Your task to perform on an android device: open app "Instagram" (install if not already installed) Image 0: 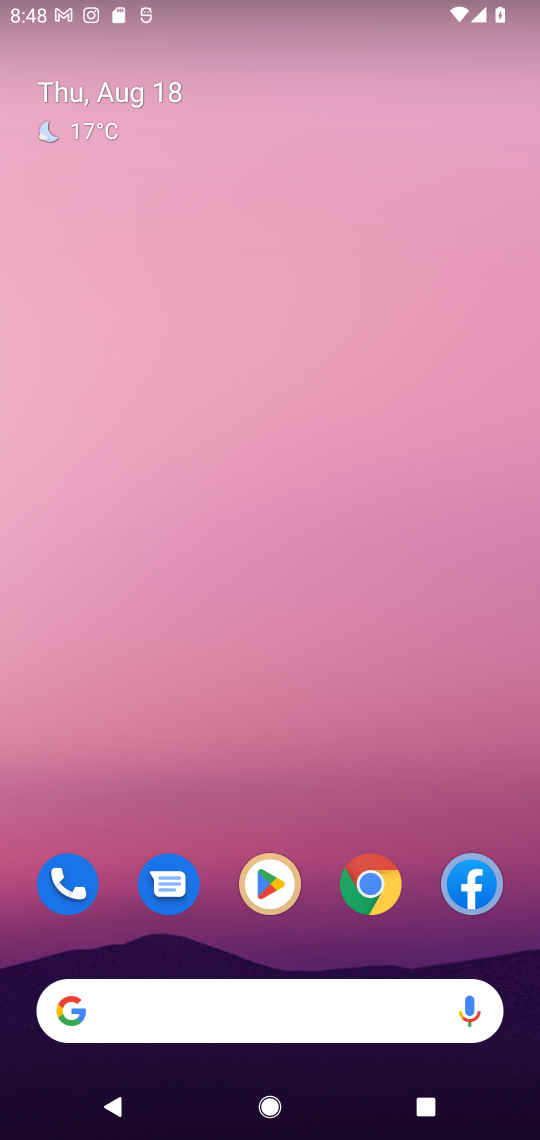
Step 0: drag from (183, 1019) to (229, 91)
Your task to perform on an android device: open app "Instagram" (install if not already installed) Image 1: 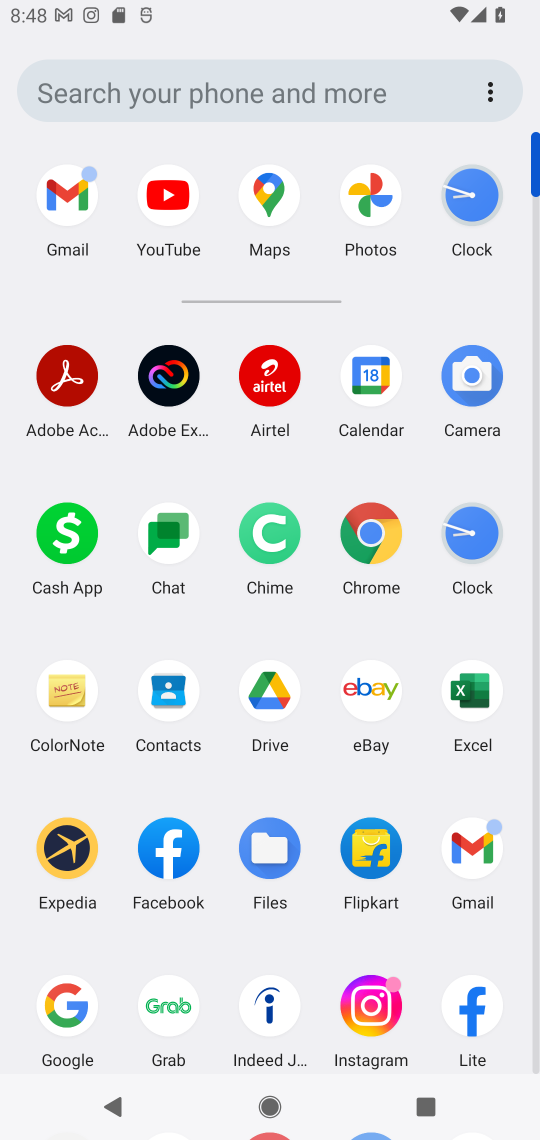
Step 1: drag from (216, 988) to (271, 302)
Your task to perform on an android device: open app "Instagram" (install if not already installed) Image 2: 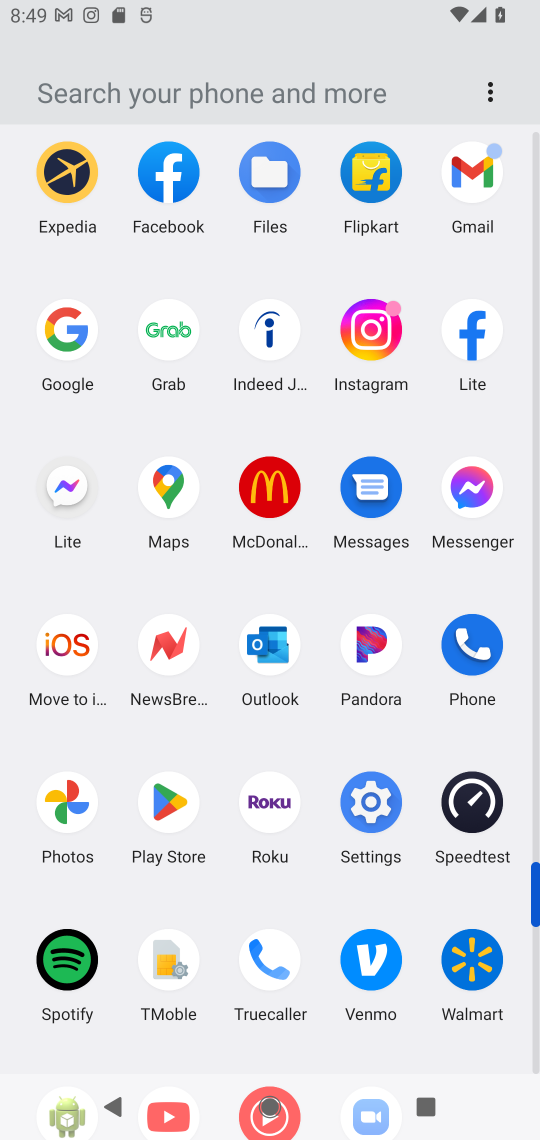
Step 2: click (171, 810)
Your task to perform on an android device: open app "Instagram" (install if not already installed) Image 3: 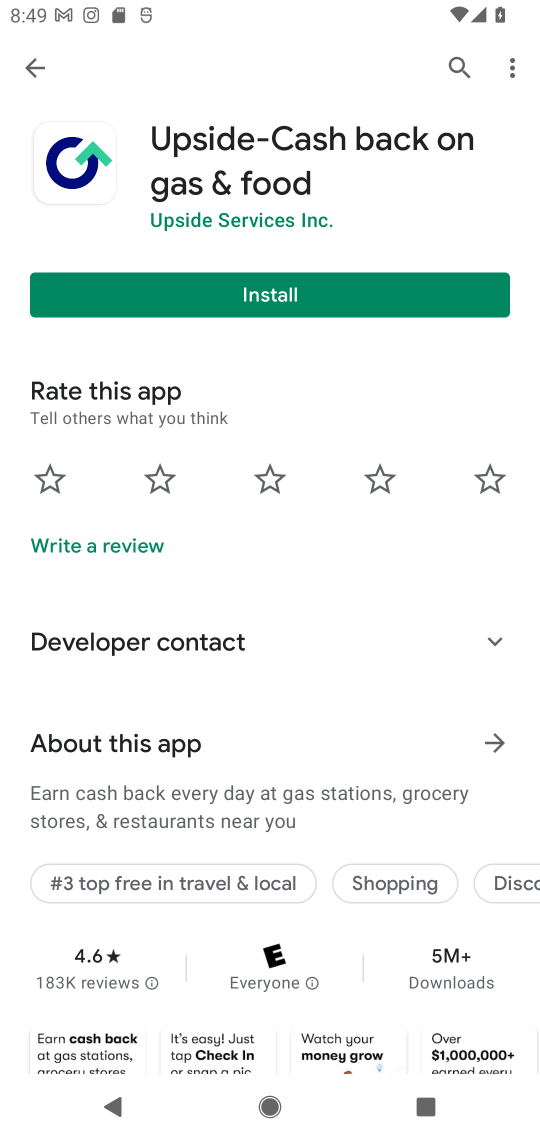
Step 3: press back button
Your task to perform on an android device: open app "Instagram" (install if not already installed) Image 4: 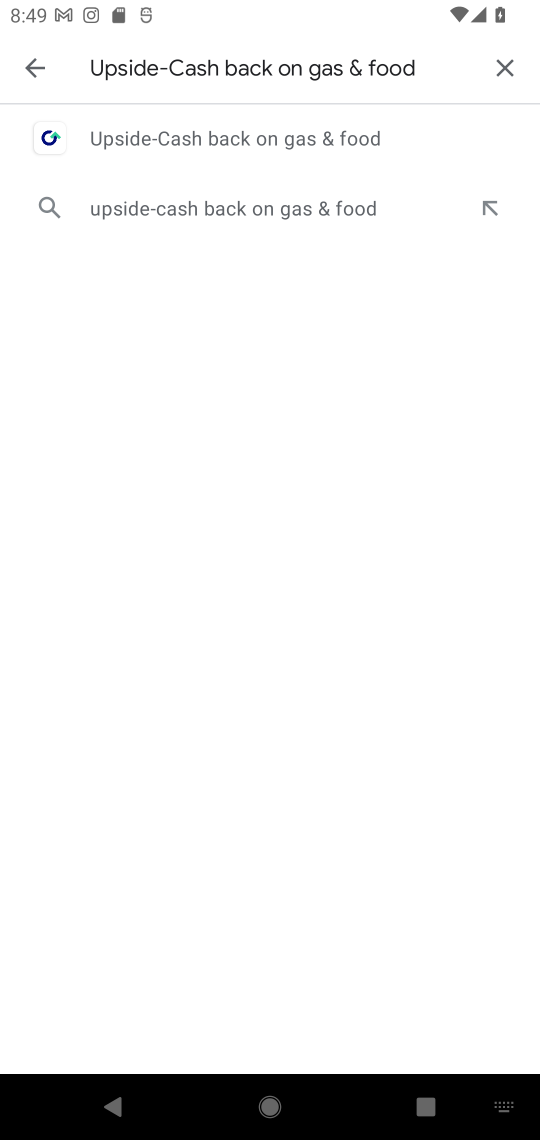
Step 4: press back button
Your task to perform on an android device: open app "Instagram" (install if not already installed) Image 5: 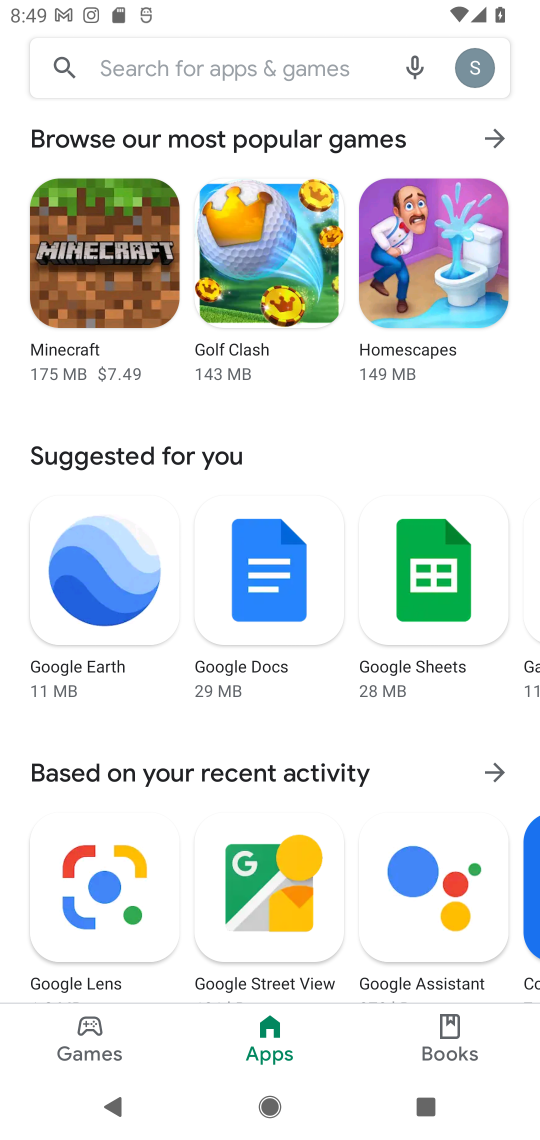
Step 5: click (275, 65)
Your task to perform on an android device: open app "Instagram" (install if not already installed) Image 6: 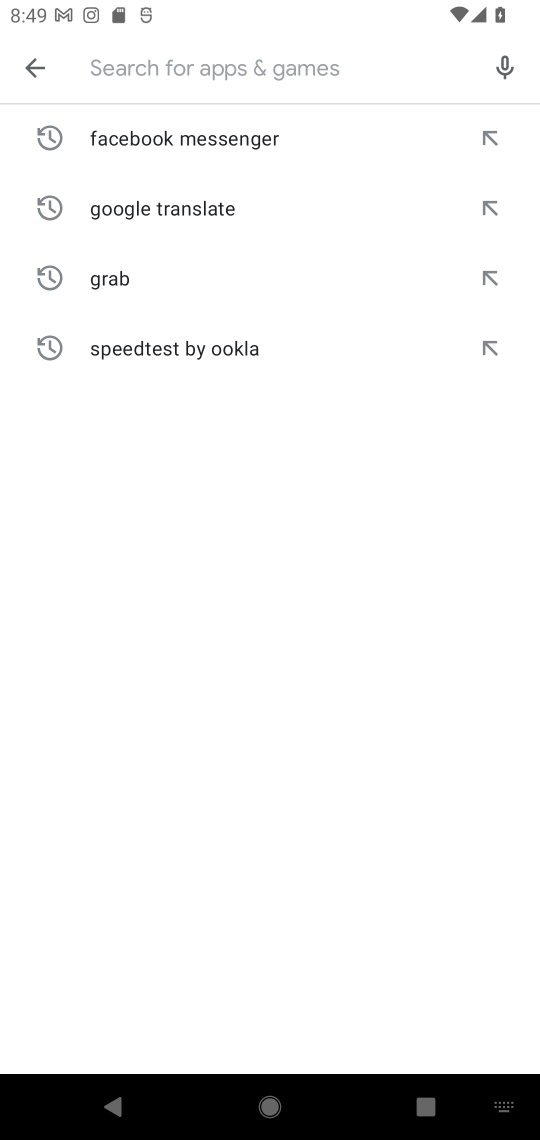
Step 6: type "Instagram"
Your task to perform on an android device: open app "Instagram" (install if not already installed) Image 7: 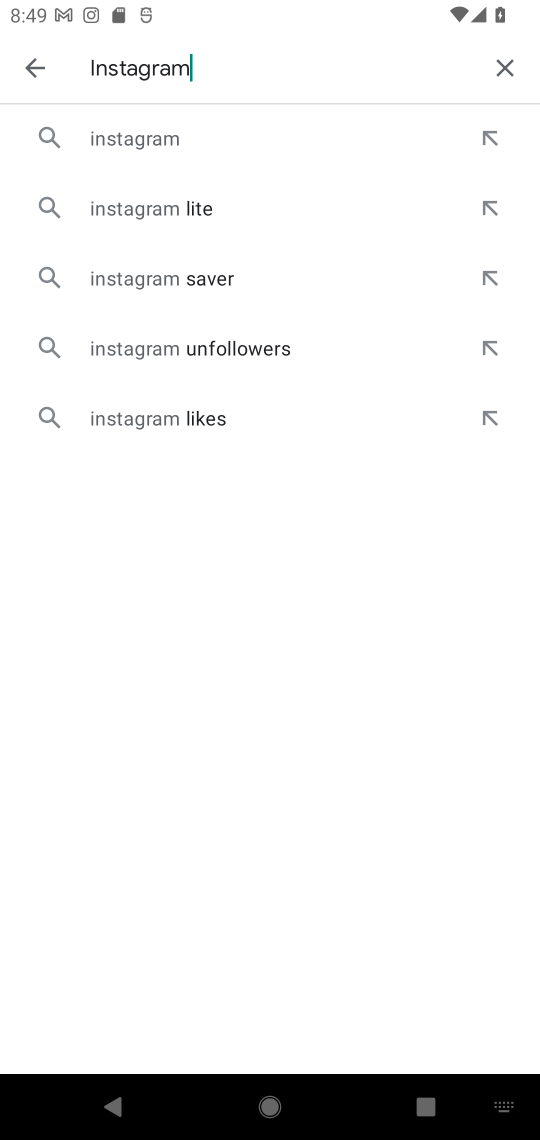
Step 7: click (114, 136)
Your task to perform on an android device: open app "Instagram" (install if not already installed) Image 8: 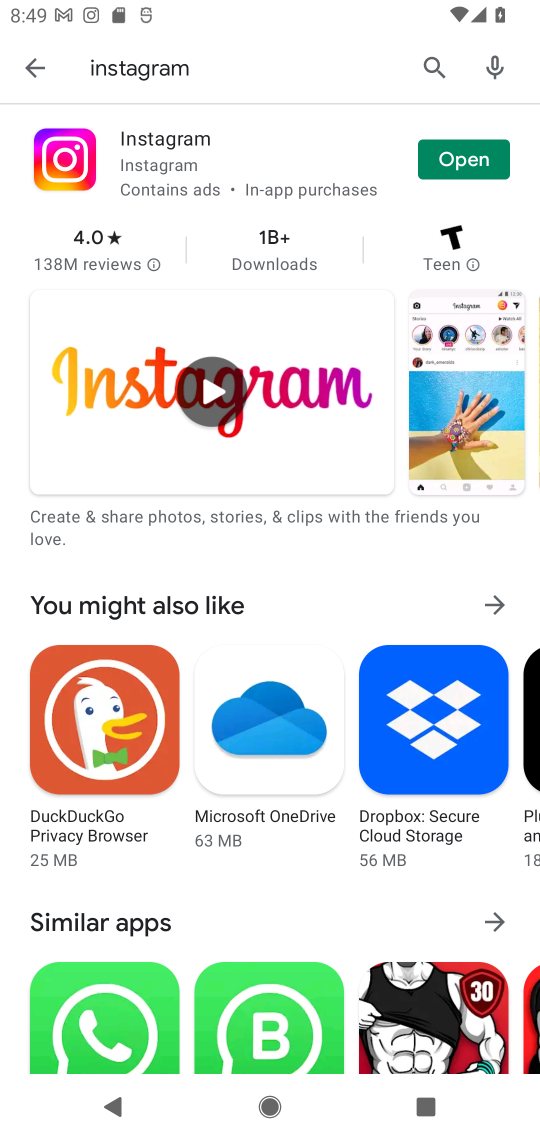
Step 8: click (459, 162)
Your task to perform on an android device: open app "Instagram" (install if not already installed) Image 9: 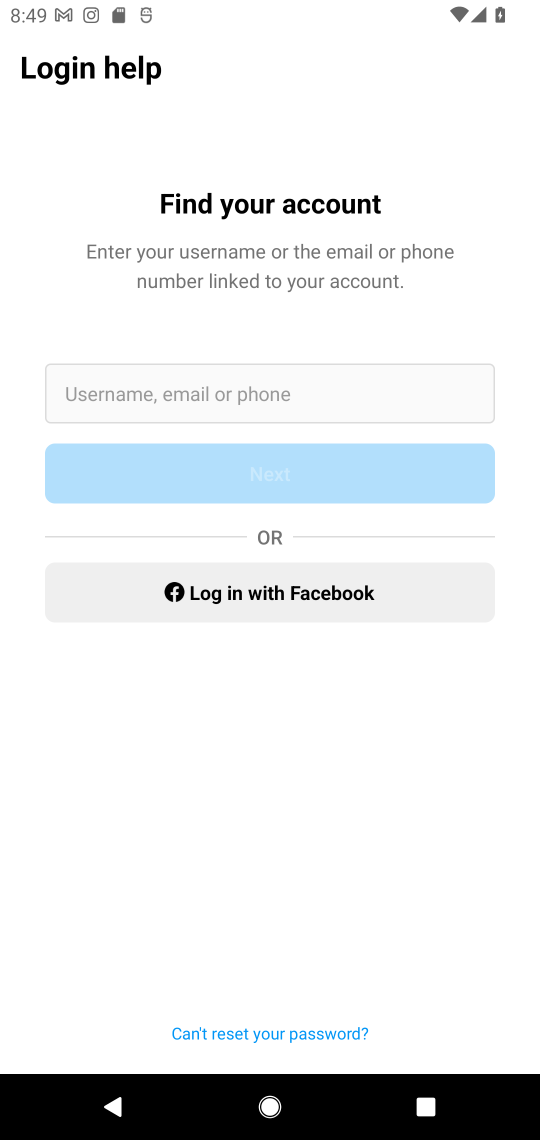
Step 9: task complete